Your task to perform on an android device: toggle translation in the chrome app Image 0: 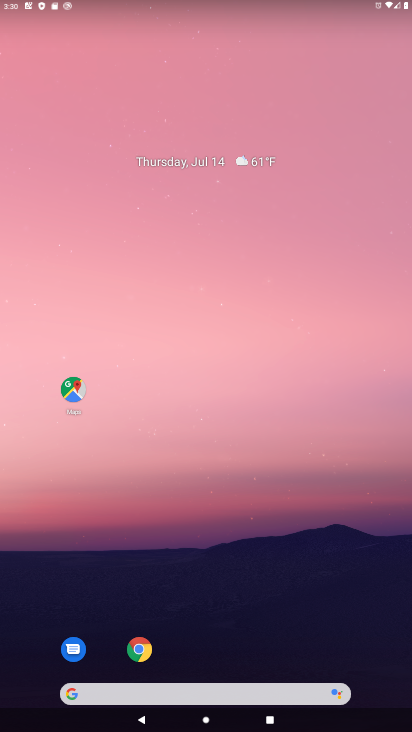
Step 0: drag from (188, 662) to (140, 176)
Your task to perform on an android device: toggle translation in the chrome app Image 1: 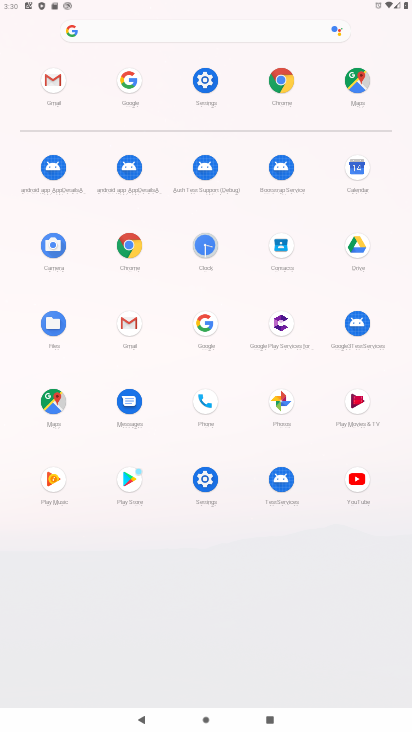
Step 1: click (274, 77)
Your task to perform on an android device: toggle translation in the chrome app Image 2: 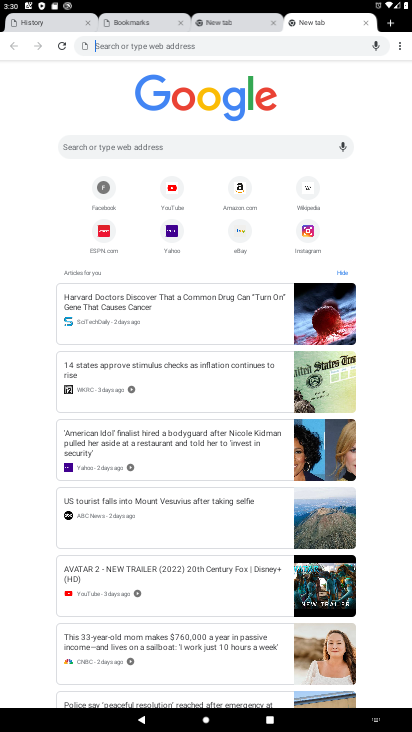
Step 2: drag from (395, 45) to (300, 214)
Your task to perform on an android device: toggle translation in the chrome app Image 3: 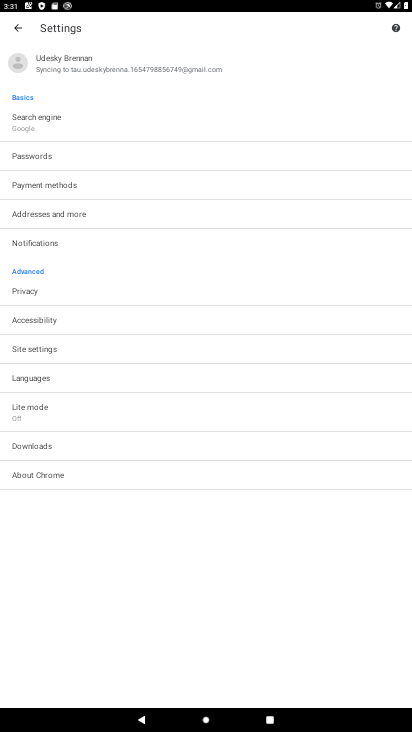
Step 3: click (52, 384)
Your task to perform on an android device: toggle translation in the chrome app Image 4: 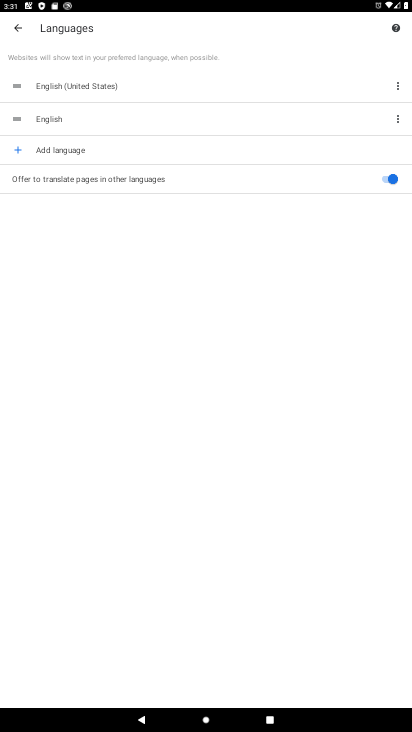
Step 4: click (390, 175)
Your task to perform on an android device: toggle translation in the chrome app Image 5: 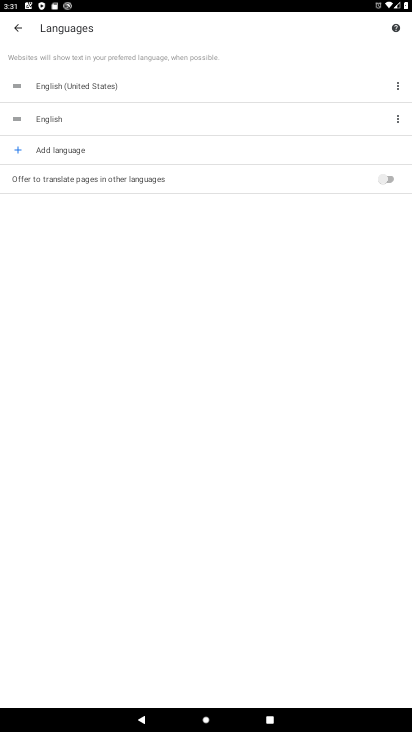
Step 5: task complete